Your task to perform on an android device: turn on showing notifications on the lock screen Image 0: 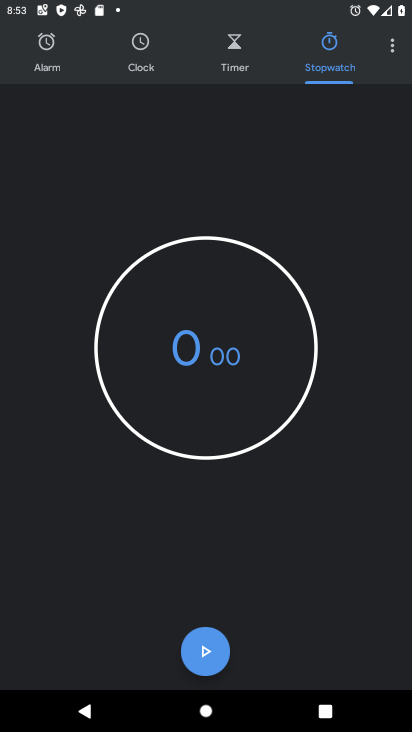
Step 0: drag from (403, 634) to (406, 225)
Your task to perform on an android device: turn on showing notifications on the lock screen Image 1: 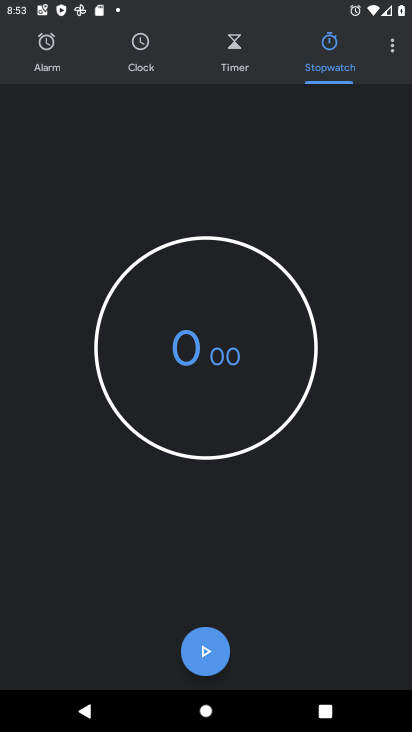
Step 1: press home button
Your task to perform on an android device: turn on showing notifications on the lock screen Image 2: 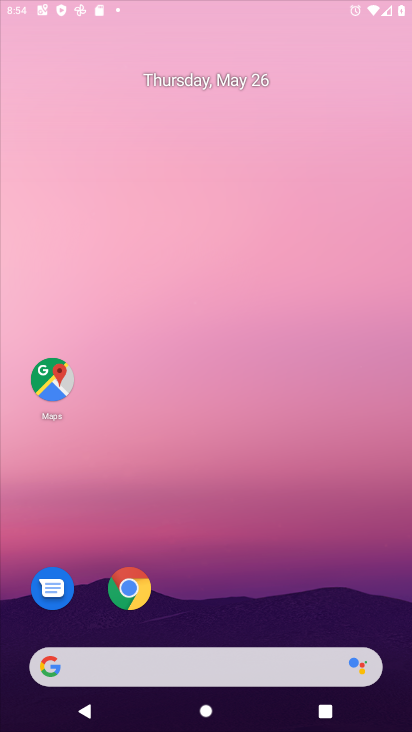
Step 2: drag from (396, 650) to (309, 13)
Your task to perform on an android device: turn on showing notifications on the lock screen Image 3: 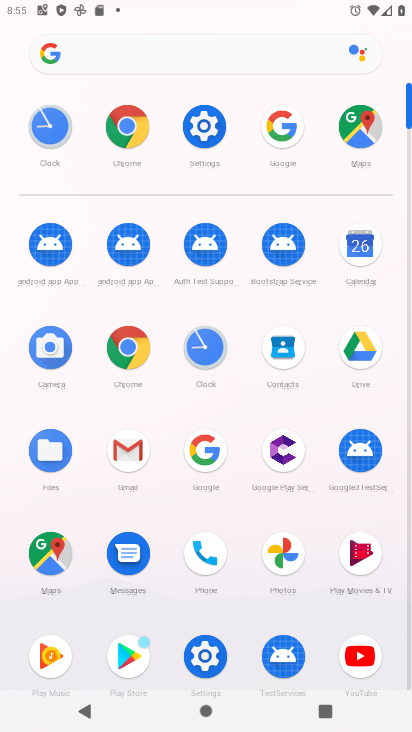
Step 3: click (203, 657)
Your task to perform on an android device: turn on showing notifications on the lock screen Image 4: 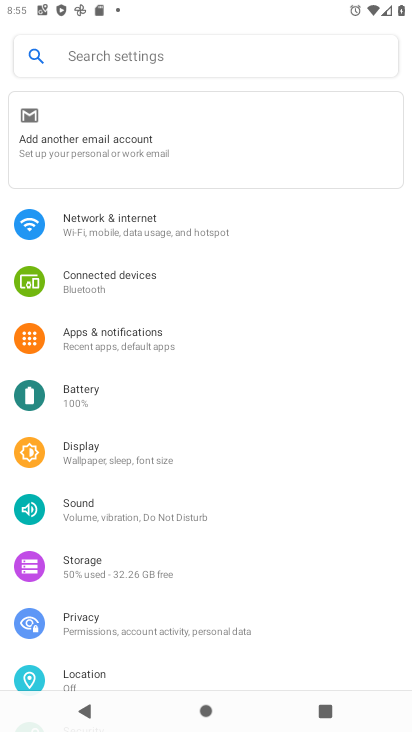
Step 4: click (150, 331)
Your task to perform on an android device: turn on showing notifications on the lock screen Image 5: 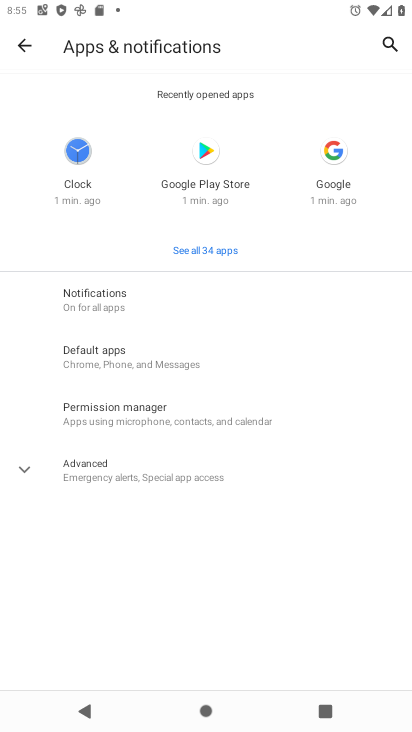
Step 5: click (143, 299)
Your task to perform on an android device: turn on showing notifications on the lock screen Image 6: 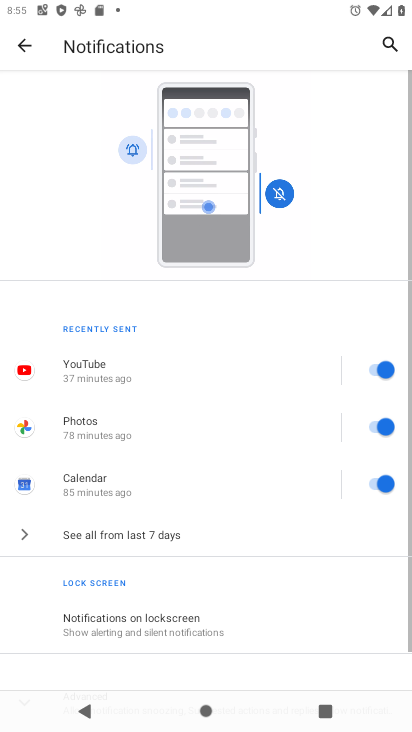
Step 6: click (191, 631)
Your task to perform on an android device: turn on showing notifications on the lock screen Image 7: 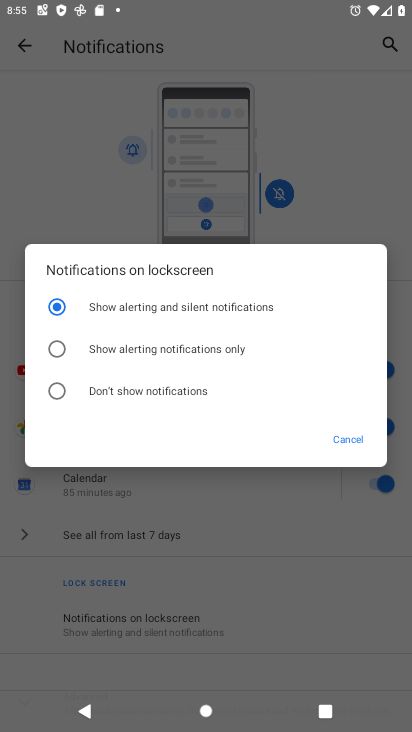
Step 7: click (182, 290)
Your task to perform on an android device: turn on showing notifications on the lock screen Image 8: 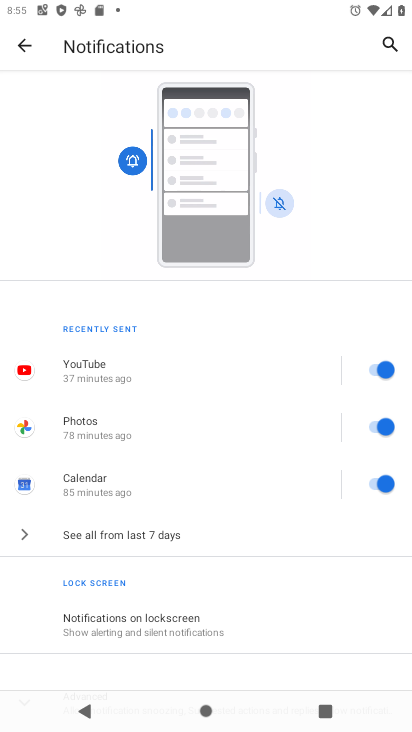
Step 8: task complete